Your task to perform on an android device: toggle sleep mode Image 0: 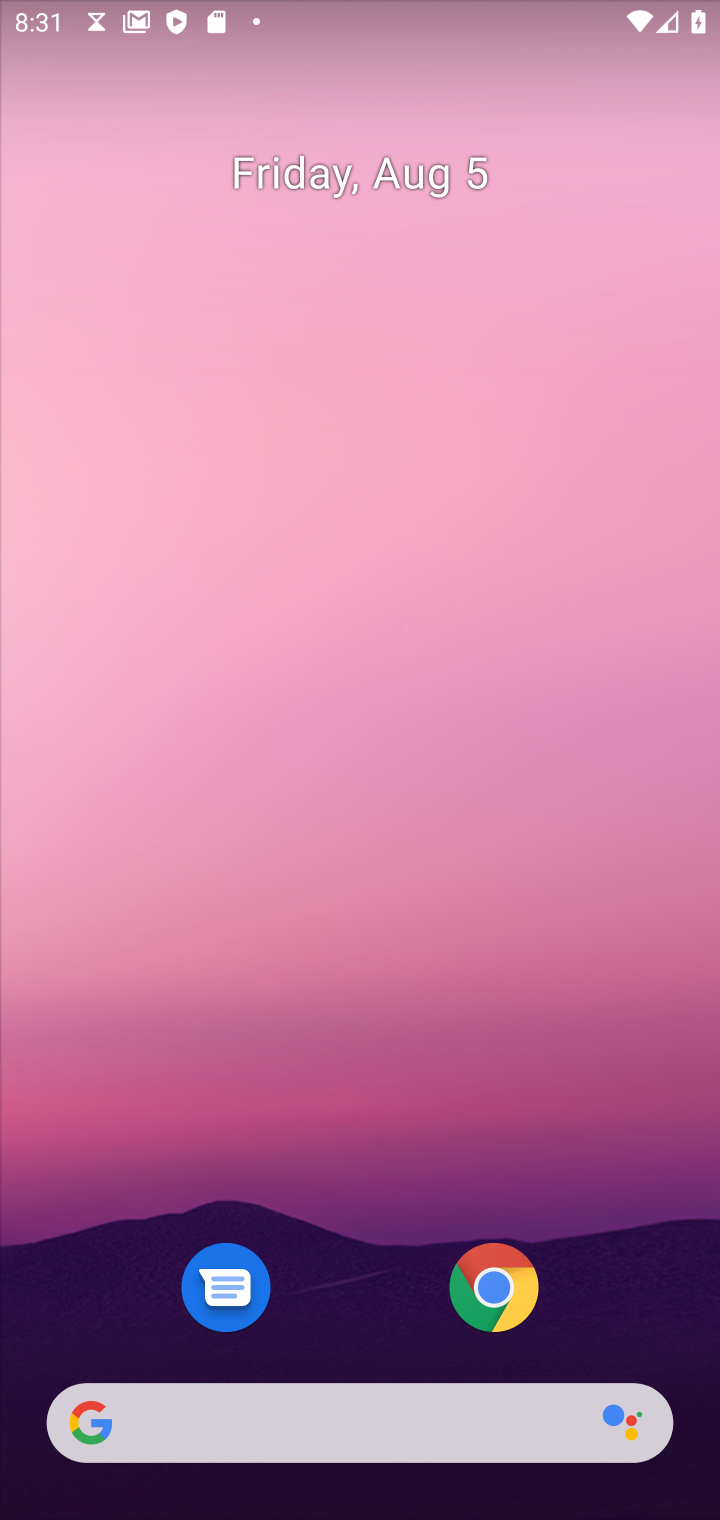
Step 0: drag from (336, 1068) to (307, 358)
Your task to perform on an android device: toggle sleep mode Image 1: 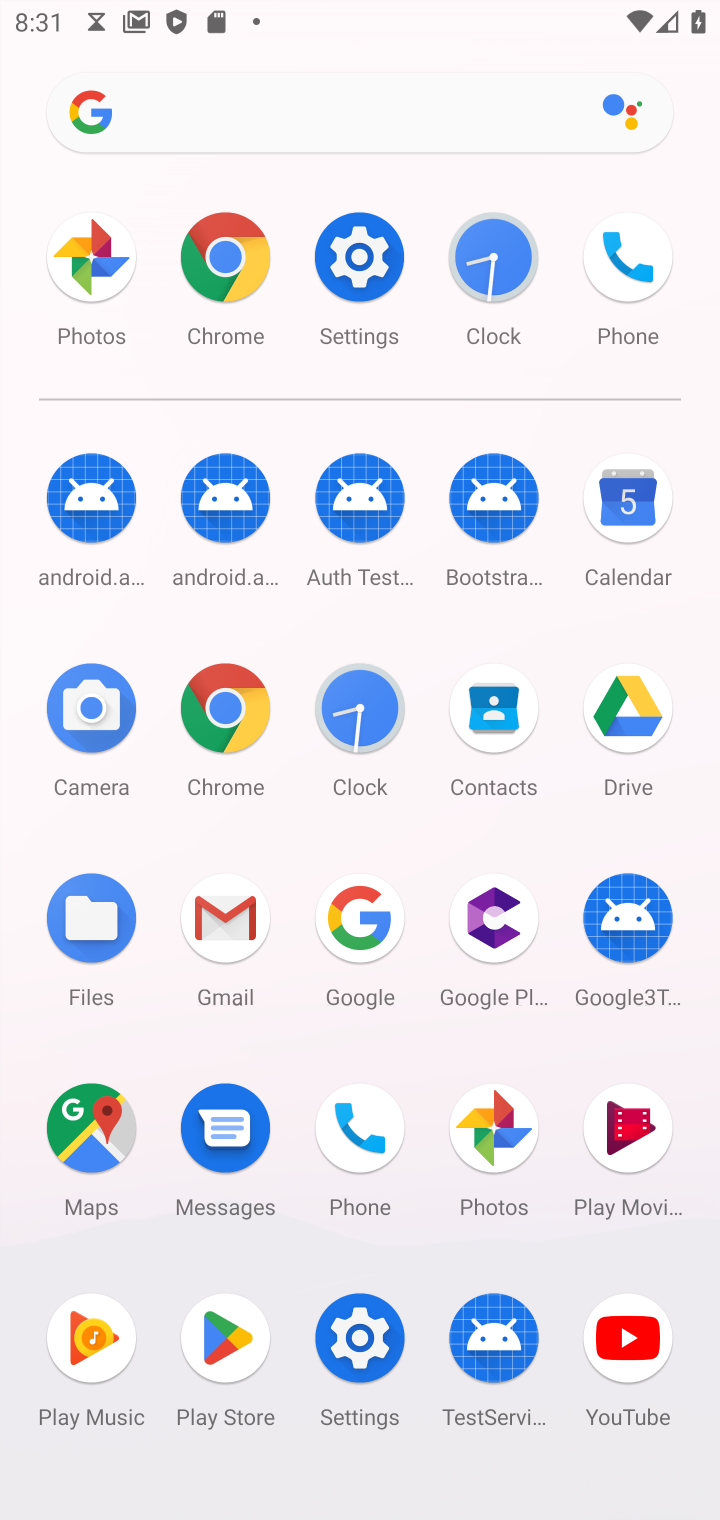
Step 1: click (358, 251)
Your task to perform on an android device: toggle sleep mode Image 2: 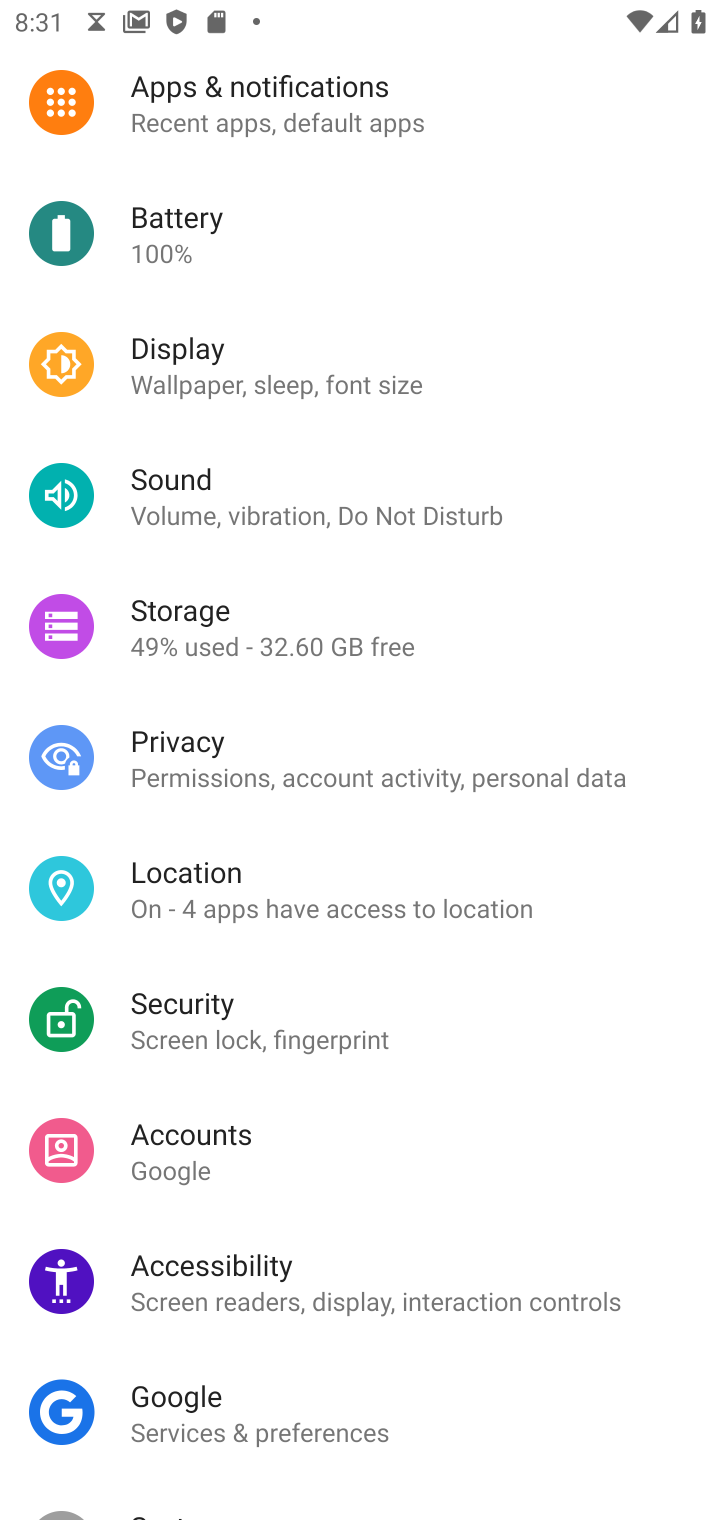
Step 2: drag from (151, 325) to (194, 975)
Your task to perform on an android device: toggle sleep mode Image 3: 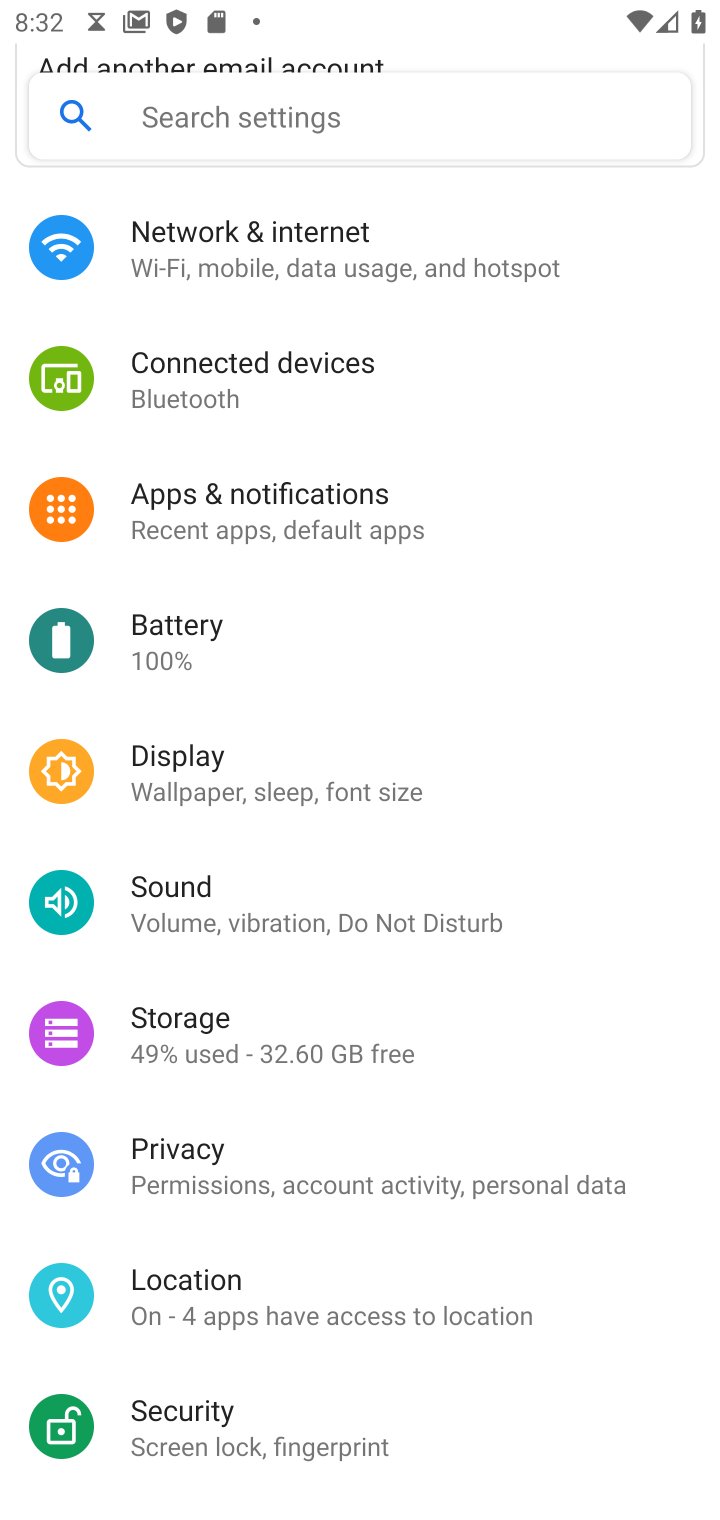
Step 3: click (175, 781)
Your task to perform on an android device: toggle sleep mode Image 4: 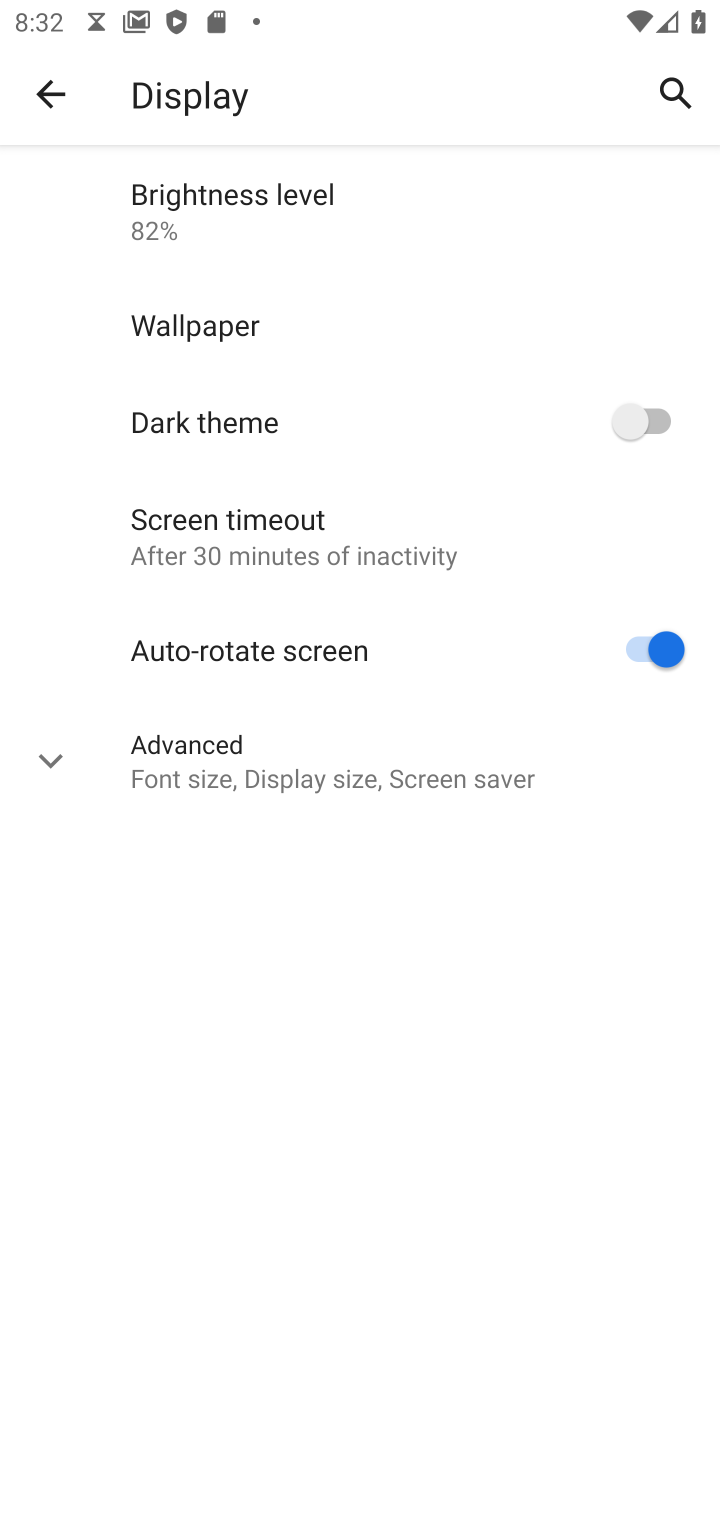
Step 4: task complete